Your task to perform on an android device: Google the capital of Mexico Image 0: 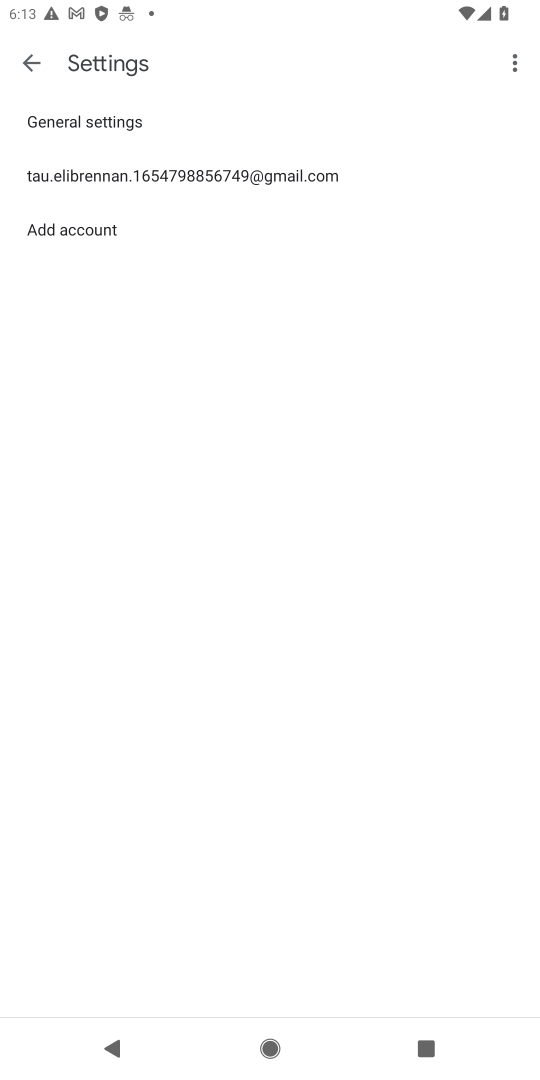
Step 0: press home button
Your task to perform on an android device: Google the capital of Mexico Image 1: 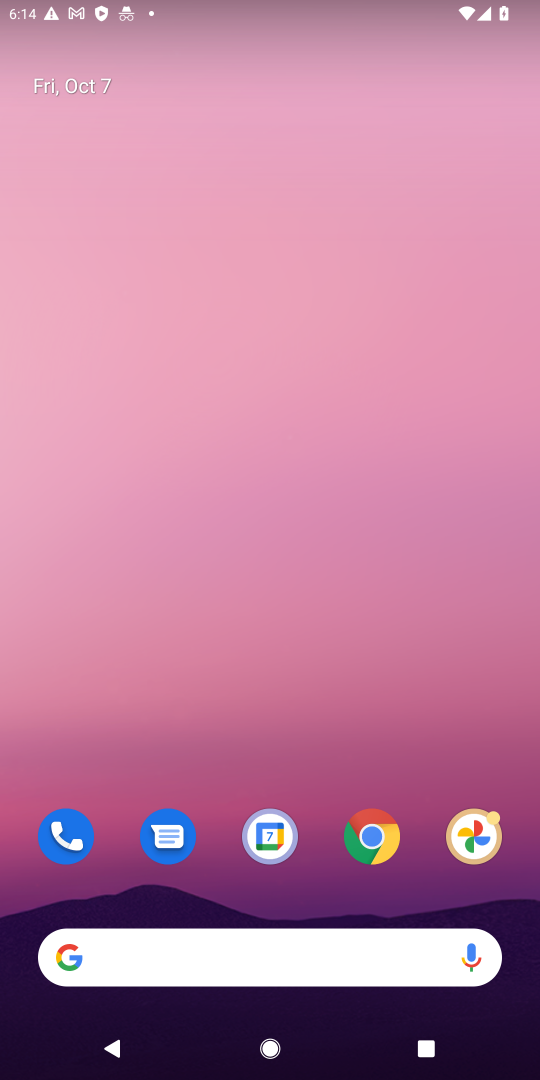
Step 1: drag from (212, 913) to (310, 95)
Your task to perform on an android device: Google the capital of Mexico Image 2: 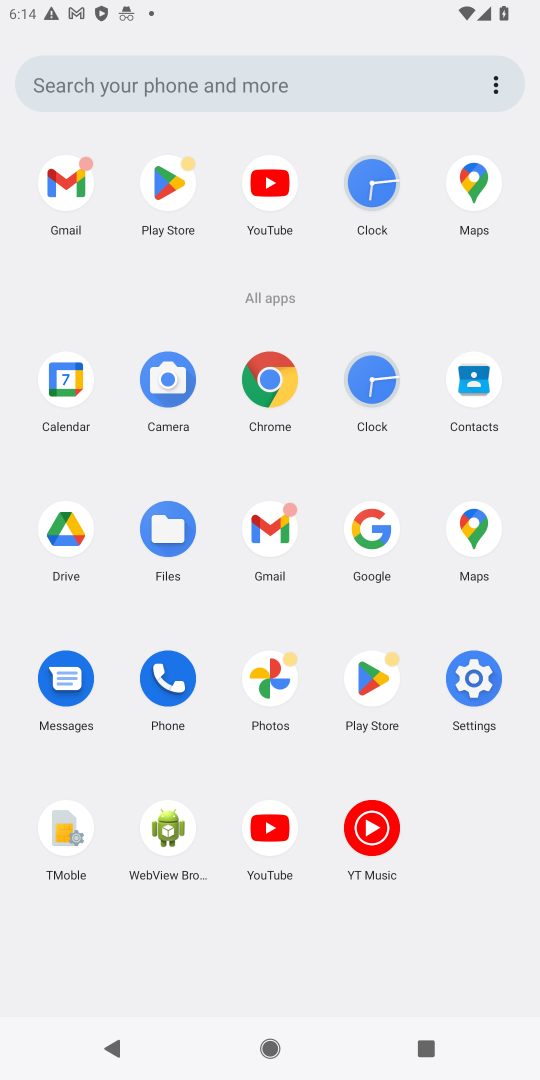
Step 2: press home button
Your task to perform on an android device: Google the capital of Mexico Image 3: 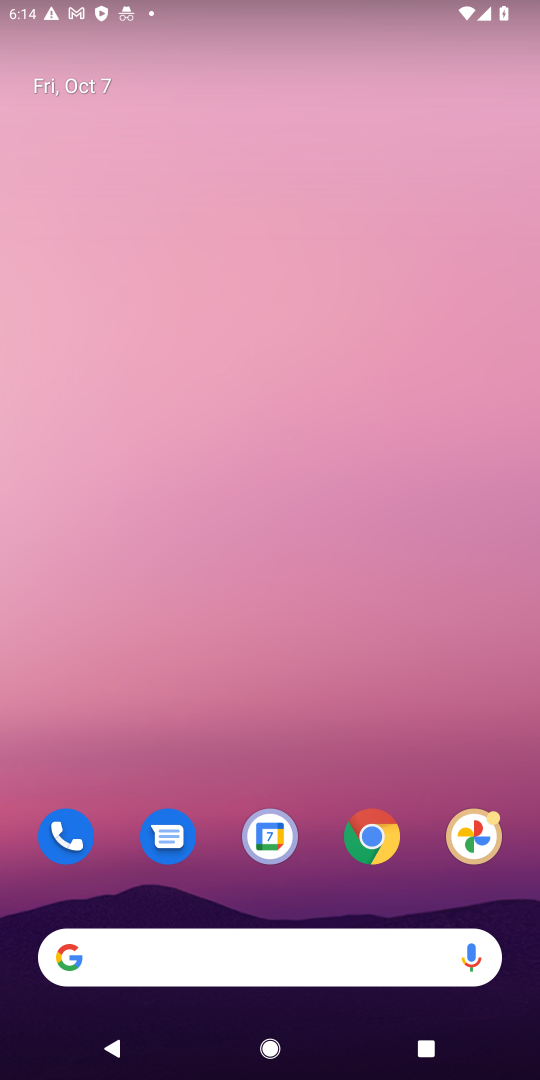
Step 3: click (320, 974)
Your task to perform on an android device: Google the capital of Mexico Image 4: 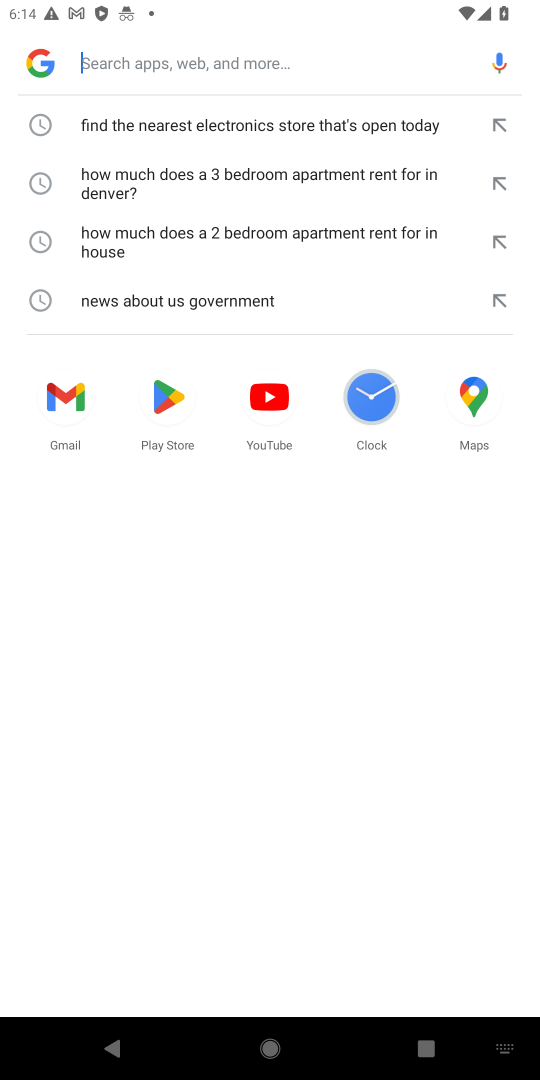
Step 4: type "Google the capital of Mexico"
Your task to perform on an android device: Google the capital of Mexico Image 5: 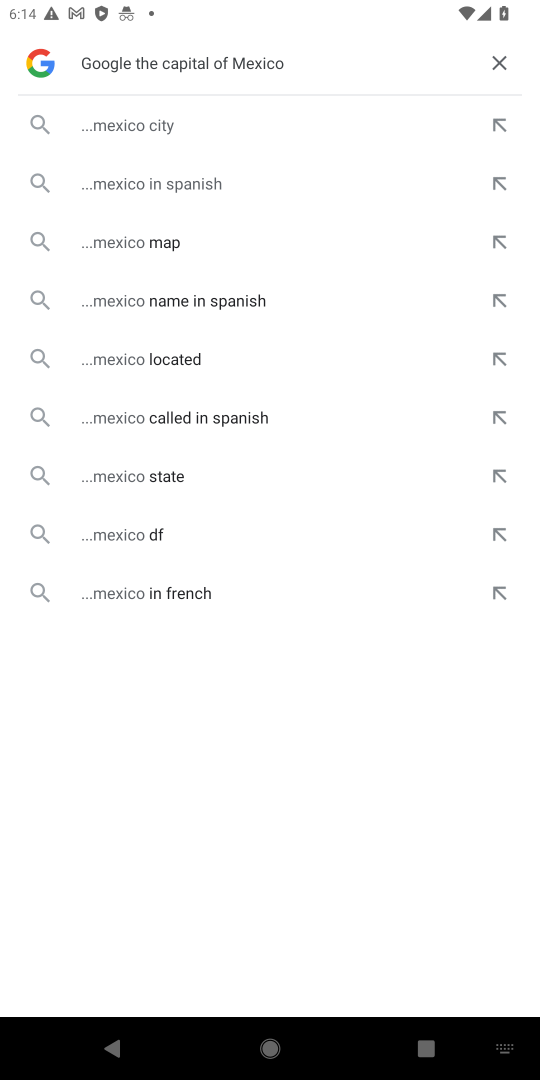
Step 5: click (185, 114)
Your task to perform on an android device: Google the capital of Mexico Image 6: 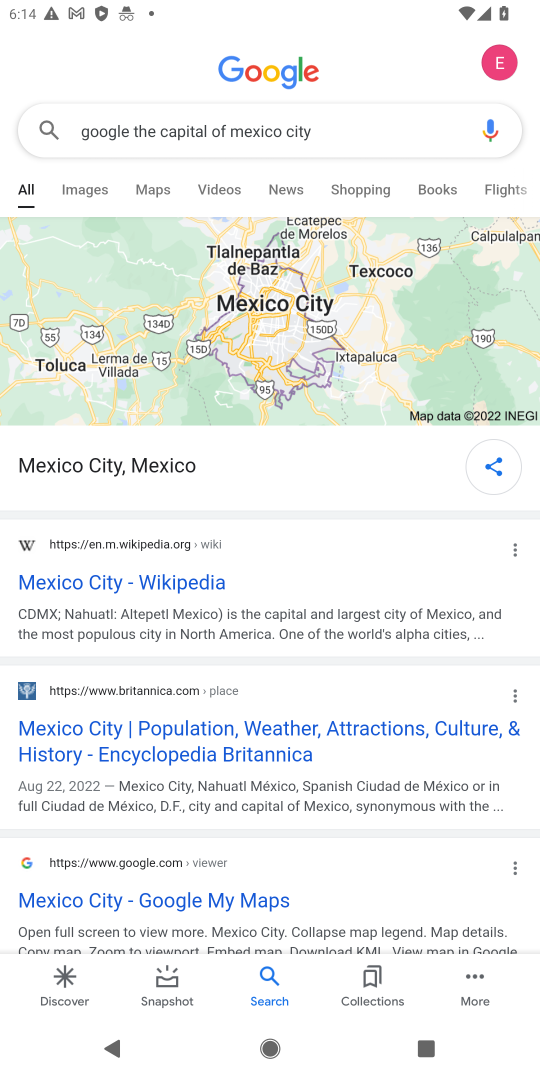
Step 6: task complete